Your task to perform on an android device: Open the Play Movies app and select the watchlist tab. Image 0: 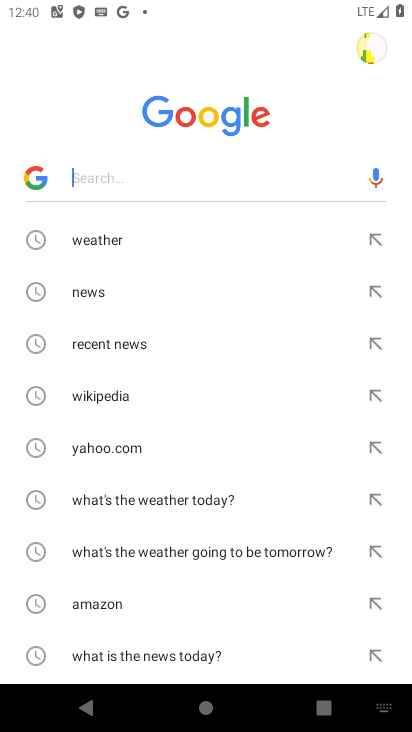
Step 0: press home button
Your task to perform on an android device: Open the Play Movies app and select the watchlist tab. Image 1: 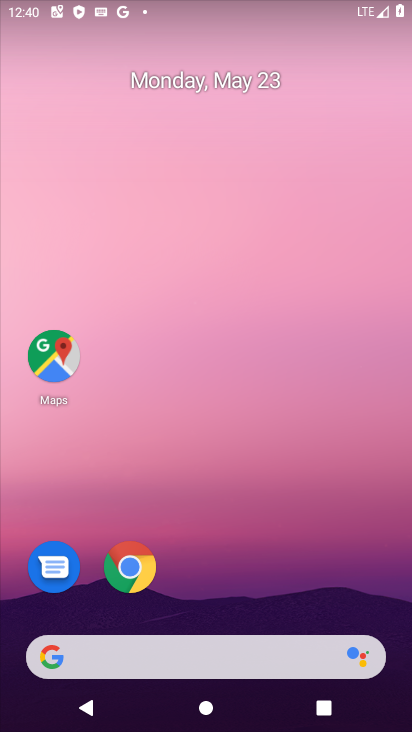
Step 1: drag from (254, 613) to (226, 134)
Your task to perform on an android device: Open the Play Movies app and select the watchlist tab. Image 2: 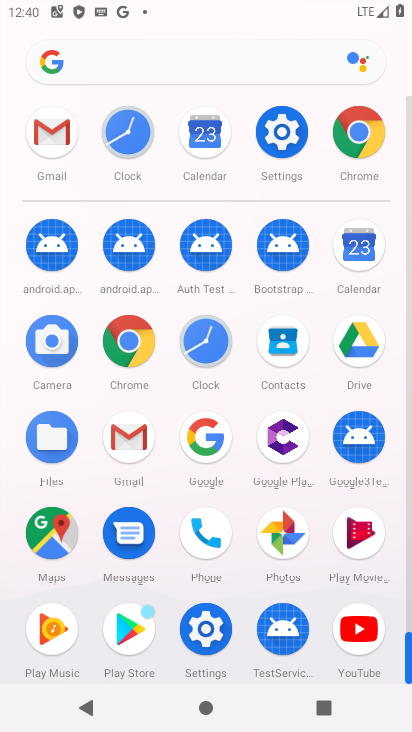
Step 2: click (372, 549)
Your task to perform on an android device: Open the Play Movies app and select the watchlist tab. Image 3: 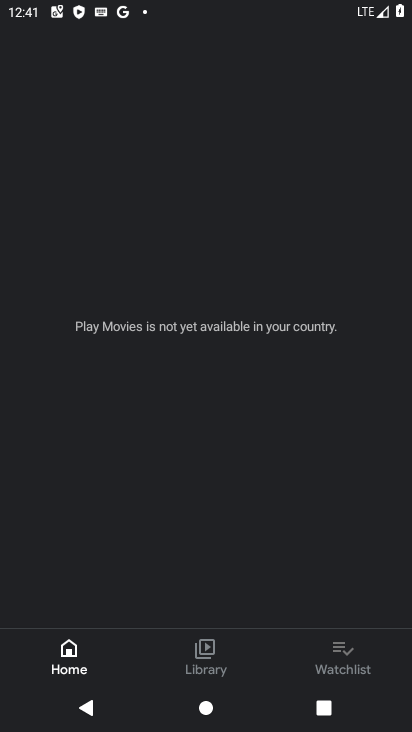
Step 3: click (348, 645)
Your task to perform on an android device: Open the Play Movies app and select the watchlist tab. Image 4: 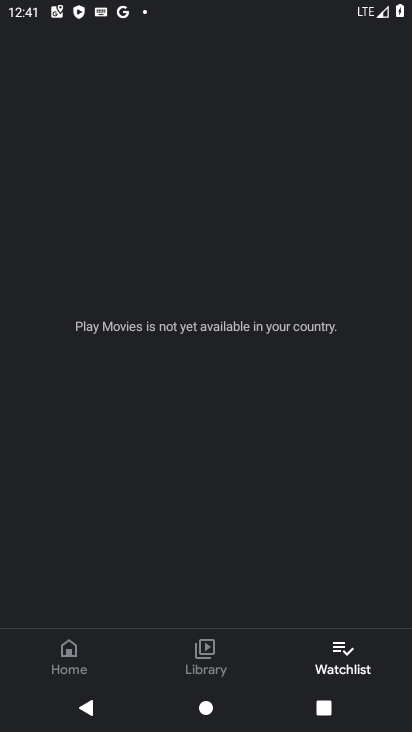
Step 4: task complete